Your task to perform on an android device: delete a single message in the gmail app Image 0: 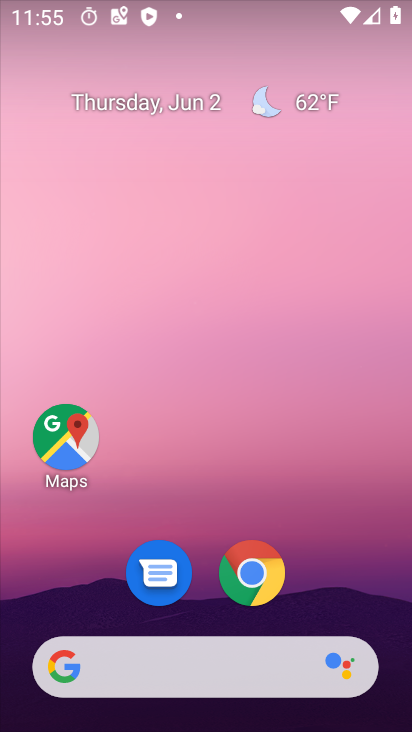
Step 0: drag from (268, 671) to (240, 111)
Your task to perform on an android device: delete a single message in the gmail app Image 1: 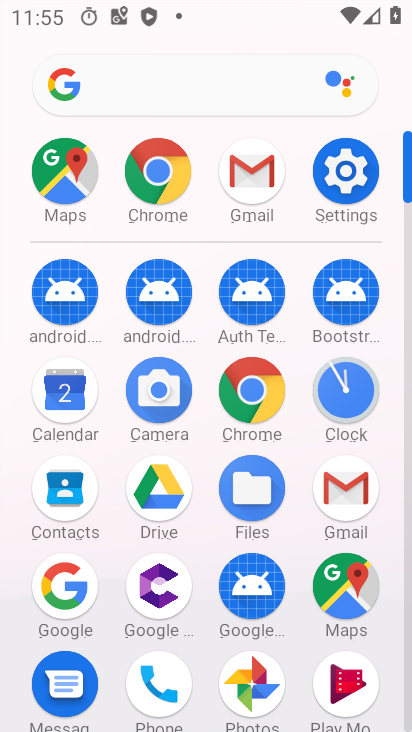
Step 1: click (355, 476)
Your task to perform on an android device: delete a single message in the gmail app Image 2: 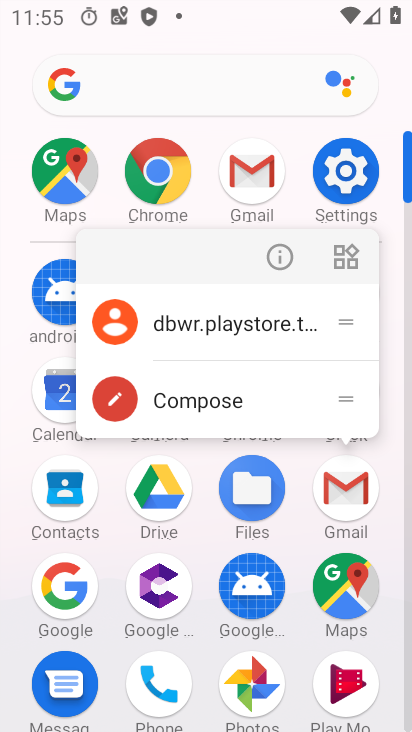
Step 2: click (347, 499)
Your task to perform on an android device: delete a single message in the gmail app Image 3: 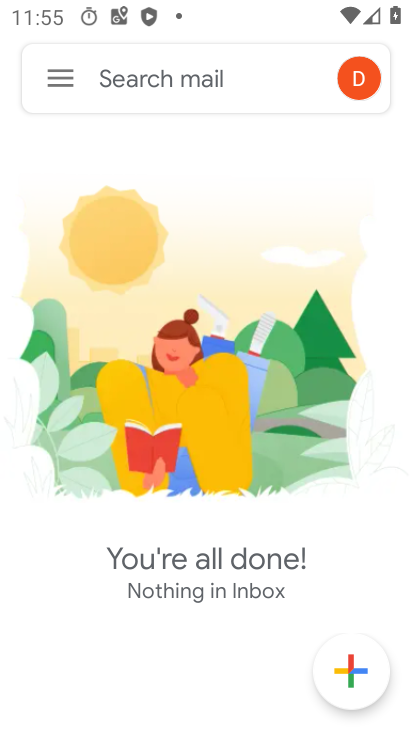
Step 3: click (347, 499)
Your task to perform on an android device: delete a single message in the gmail app Image 4: 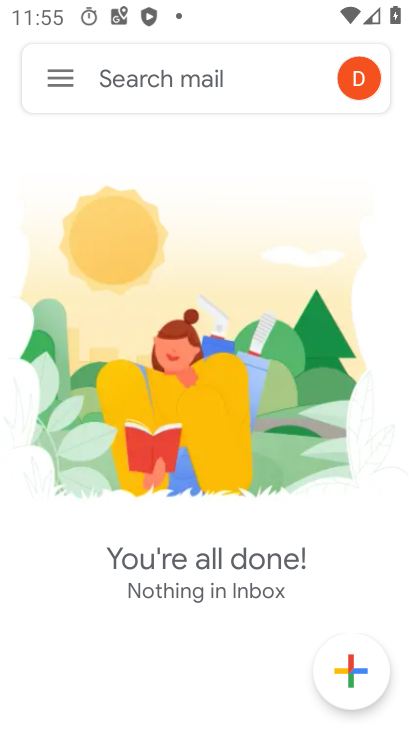
Step 4: click (62, 78)
Your task to perform on an android device: delete a single message in the gmail app Image 5: 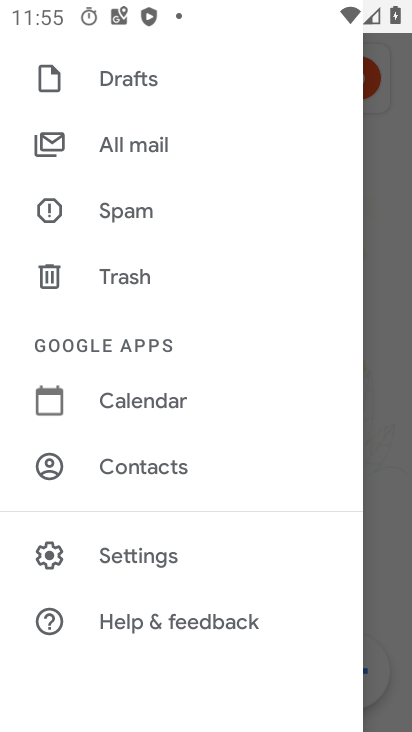
Step 5: task complete